Your task to perform on an android device: Open notification settings Image 0: 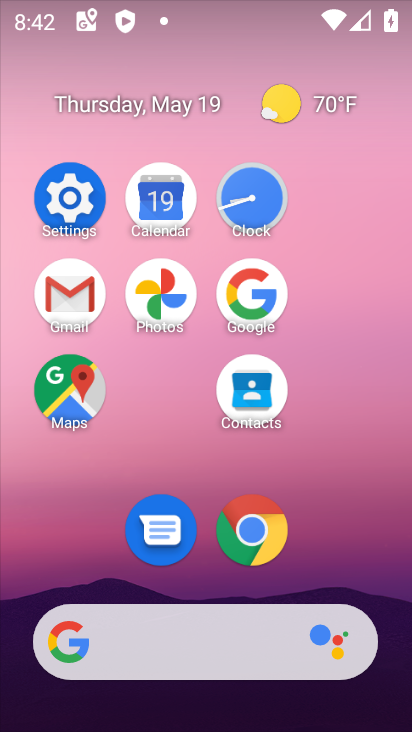
Step 0: click (86, 213)
Your task to perform on an android device: Open notification settings Image 1: 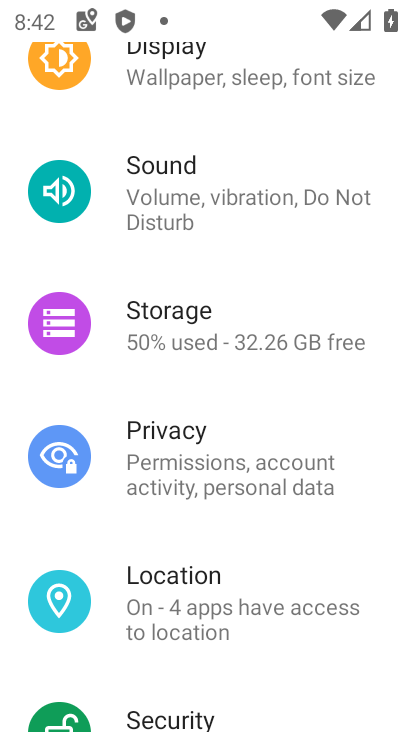
Step 1: drag from (298, 269) to (319, 608)
Your task to perform on an android device: Open notification settings Image 2: 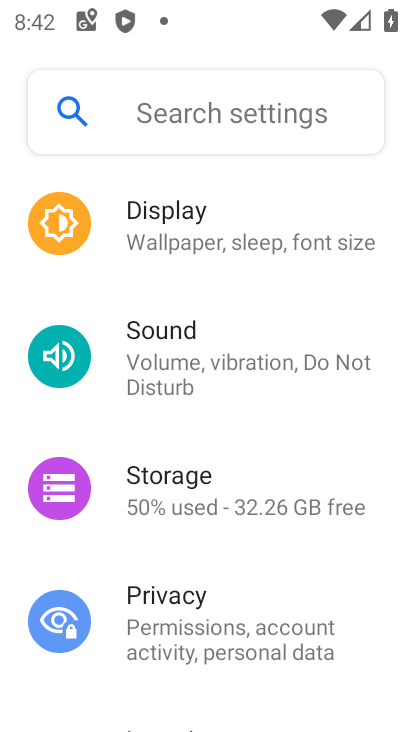
Step 2: drag from (323, 175) to (329, 500)
Your task to perform on an android device: Open notification settings Image 3: 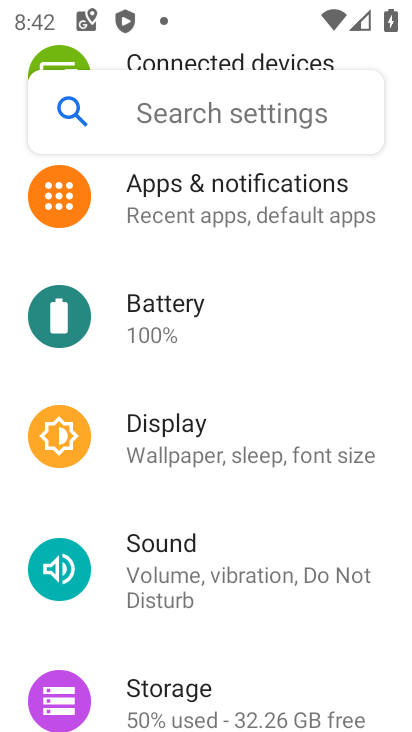
Step 3: click (244, 208)
Your task to perform on an android device: Open notification settings Image 4: 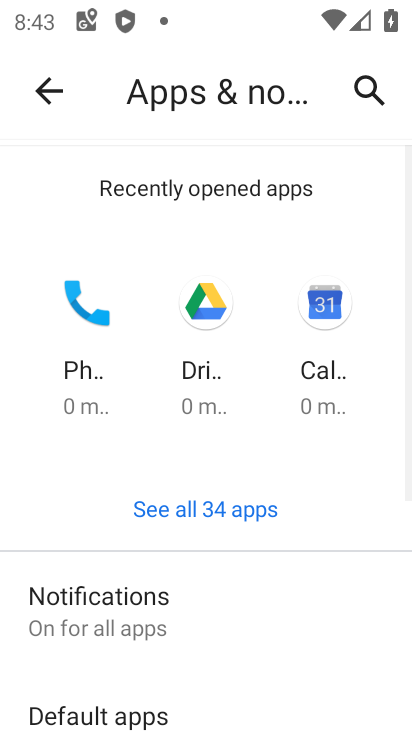
Step 4: task complete